Your task to perform on an android device: What's the weather? Image 0: 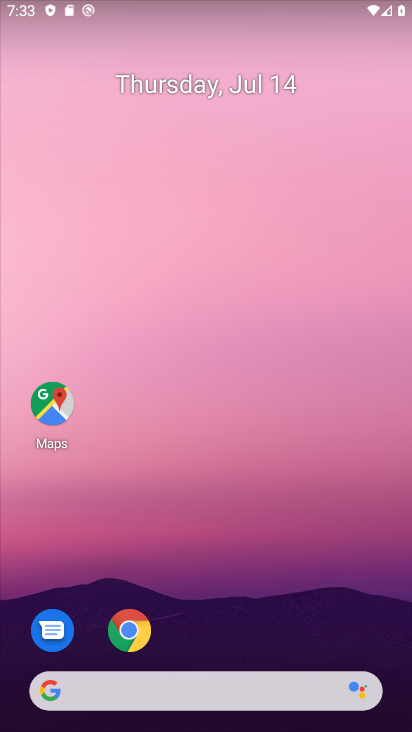
Step 0: click (127, 616)
Your task to perform on an android device: What's the weather? Image 1: 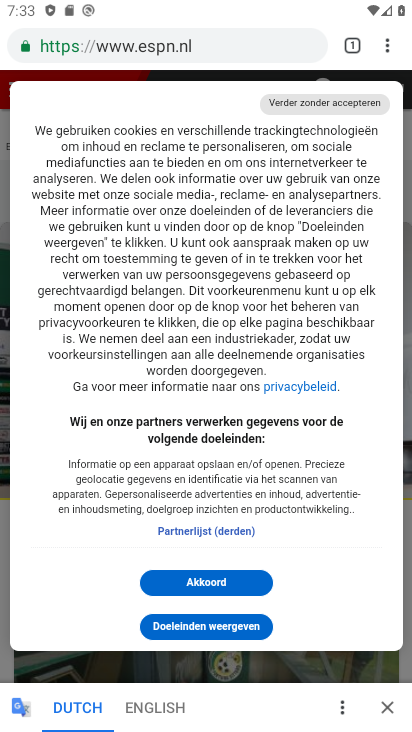
Step 1: click (401, 30)
Your task to perform on an android device: What's the weather? Image 2: 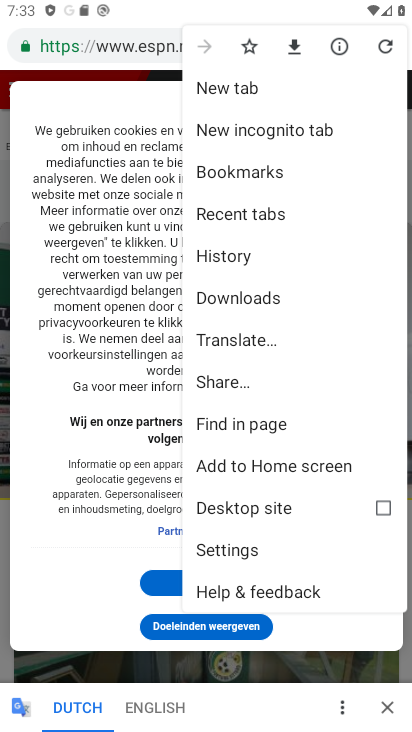
Step 2: click (244, 87)
Your task to perform on an android device: What's the weather? Image 3: 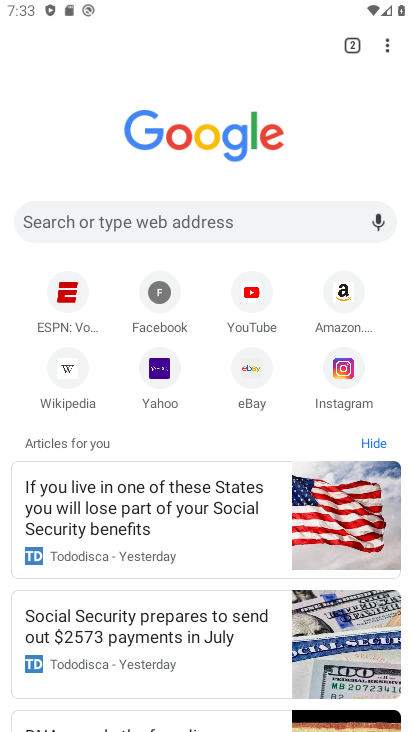
Step 3: click (183, 204)
Your task to perform on an android device: What's the weather? Image 4: 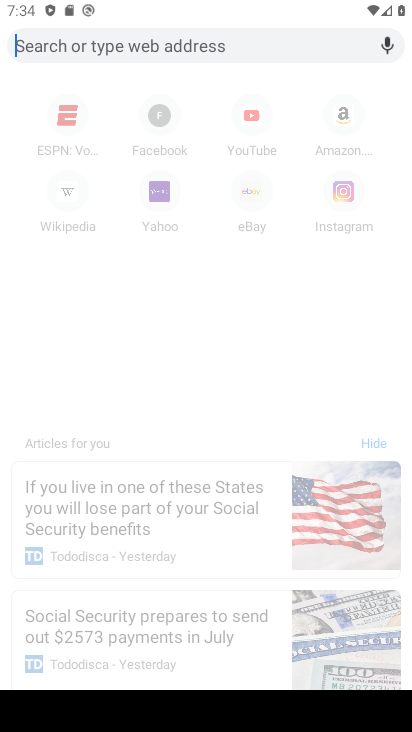
Step 4: type "What's the weather "
Your task to perform on an android device: What's the weather? Image 5: 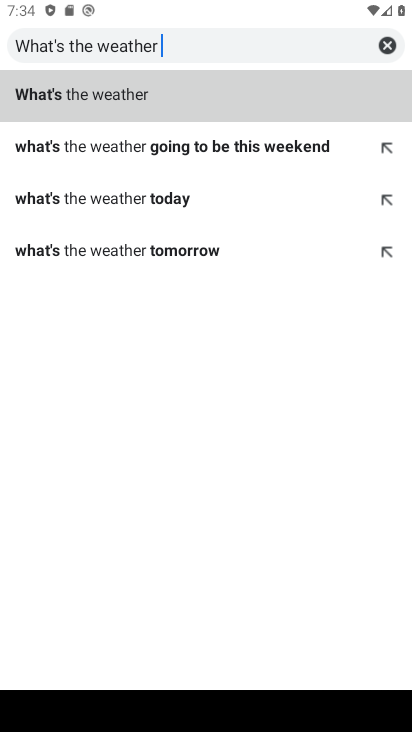
Step 5: click (253, 93)
Your task to perform on an android device: What's the weather? Image 6: 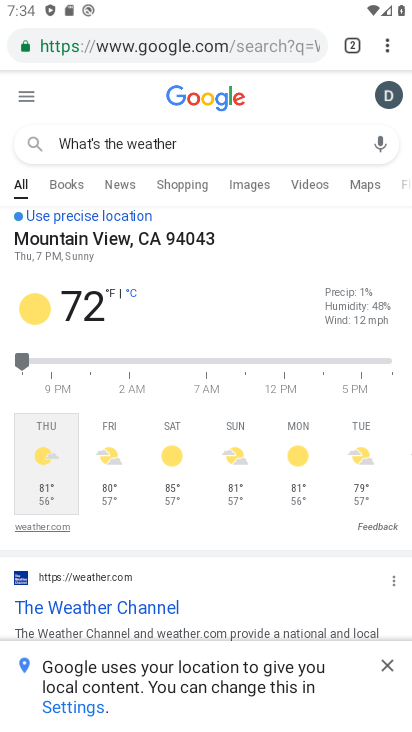
Step 6: task complete